Your task to perform on an android device: manage bookmarks in the chrome app Image 0: 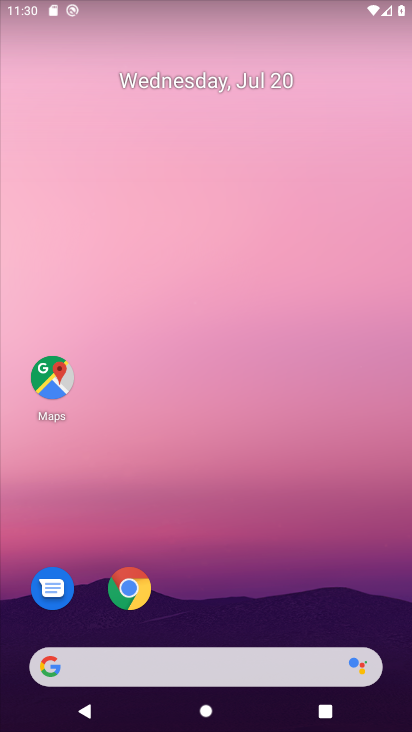
Step 0: press home button
Your task to perform on an android device: manage bookmarks in the chrome app Image 1: 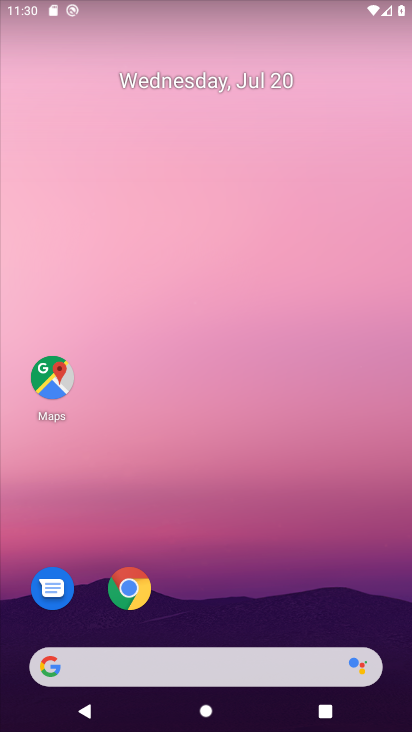
Step 1: drag from (219, 626) to (234, 8)
Your task to perform on an android device: manage bookmarks in the chrome app Image 2: 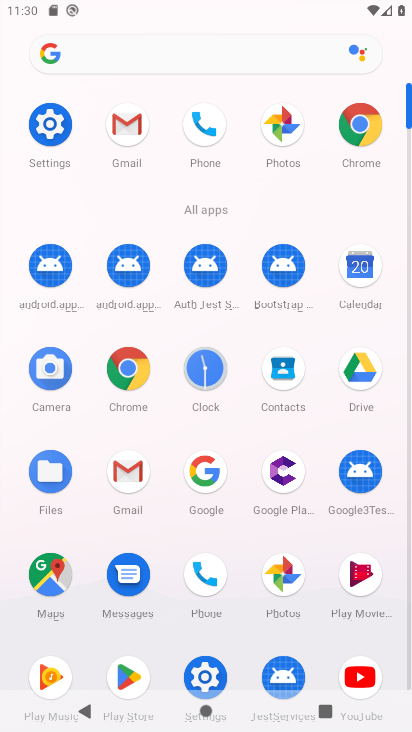
Step 2: click (356, 118)
Your task to perform on an android device: manage bookmarks in the chrome app Image 3: 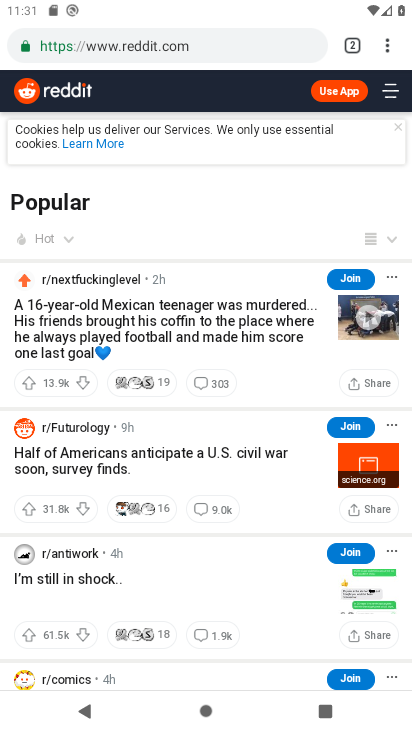
Step 3: click (384, 45)
Your task to perform on an android device: manage bookmarks in the chrome app Image 4: 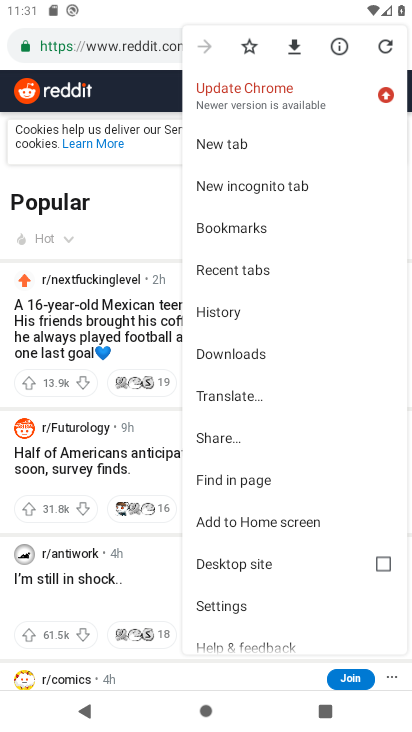
Step 4: click (266, 218)
Your task to perform on an android device: manage bookmarks in the chrome app Image 5: 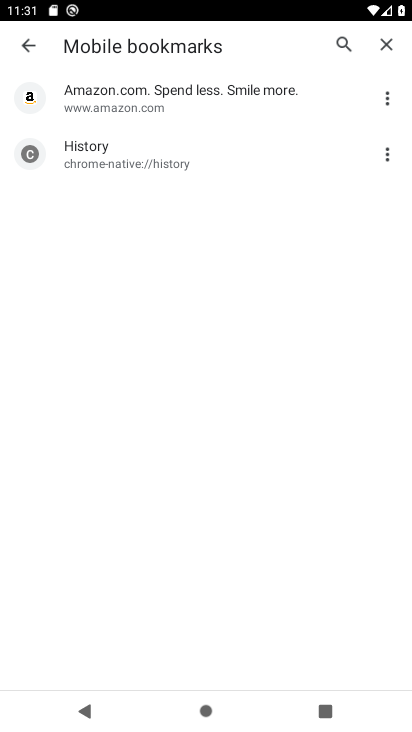
Step 5: click (383, 158)
Your task to perform on an android device: manage bookmarks in the chrome app Image 6: 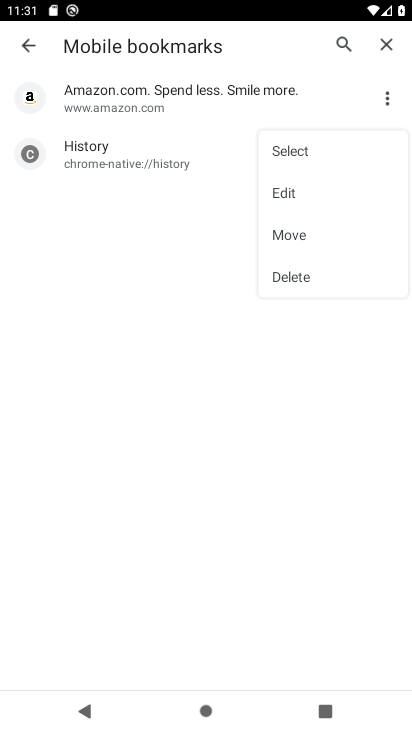
Step 6: click (315, 276)
Your task to perform on an android device: manage bookmarks in the chrome app Image 7: 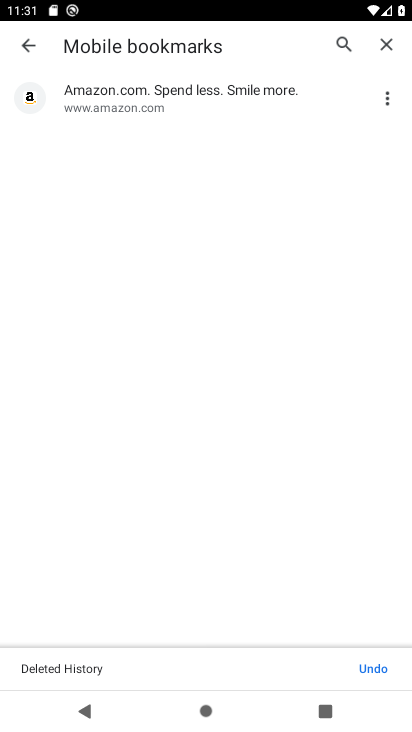
Step 7: task complete